Your task to perform on an android device: Go to wifi settings Image 0: 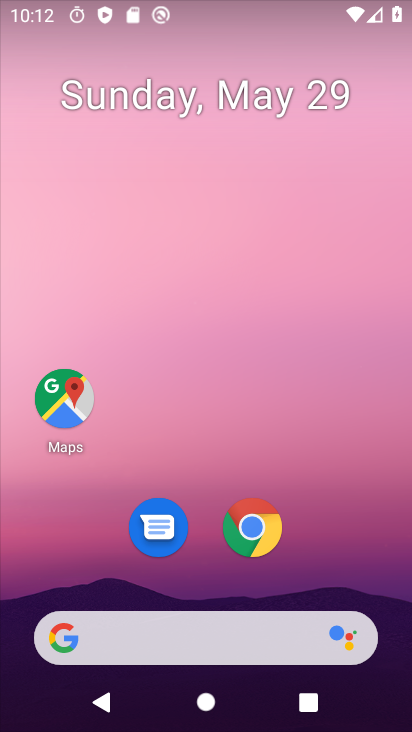
Step 0: drag from (338, 519) to (320, 223)
Your task to perform on an android device: Go to wifi settings Image 1: 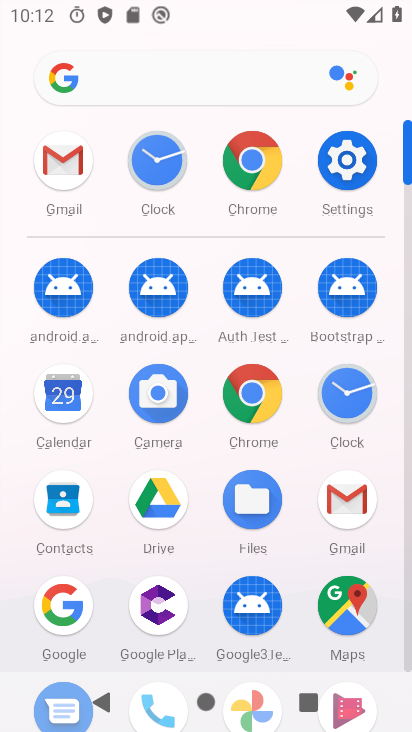
Step 1: click (343, 163)
Your task to perform on an android device: Go to wifi settings Image 2: 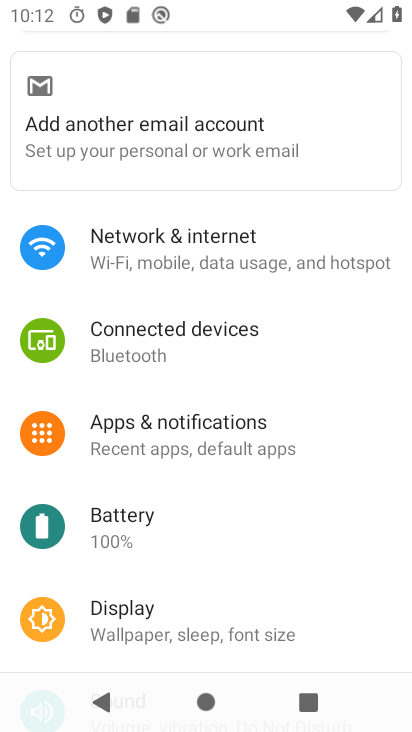
Step 2: click (206, 279)
Your task to perform on an android device: Go to wifi settings Image 3: 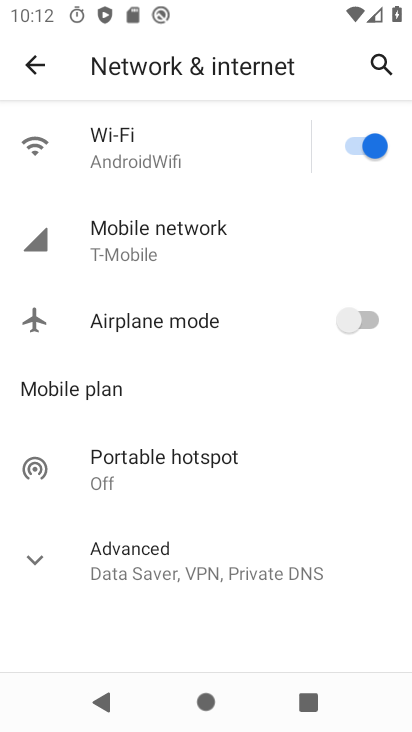
Step 3: click (226, 162)
Your task to perform on an android device: Go to wifi settings Image 4: 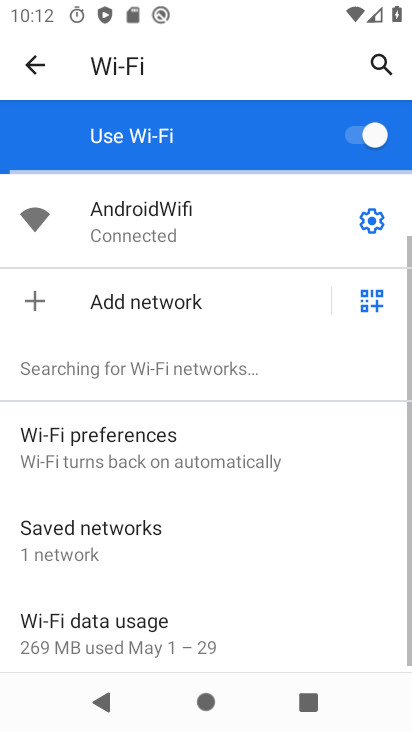
Step 4: click (381, 209)
Your task to perform on an android device: Go to wifi settings Image 5: 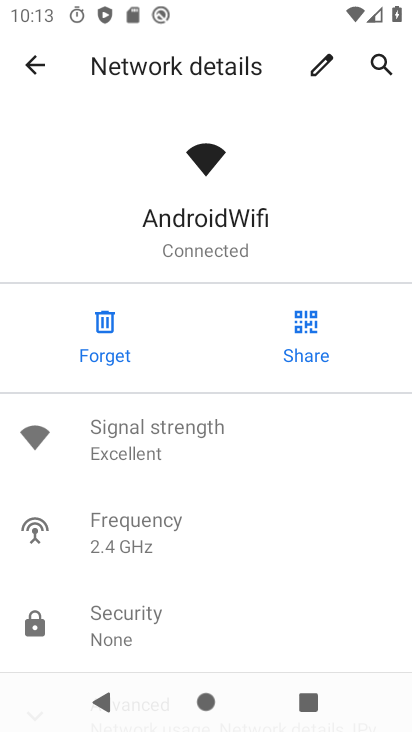
Step 5: task complete